Your task to perform on an android device: Go to ESPN.com Image 0: 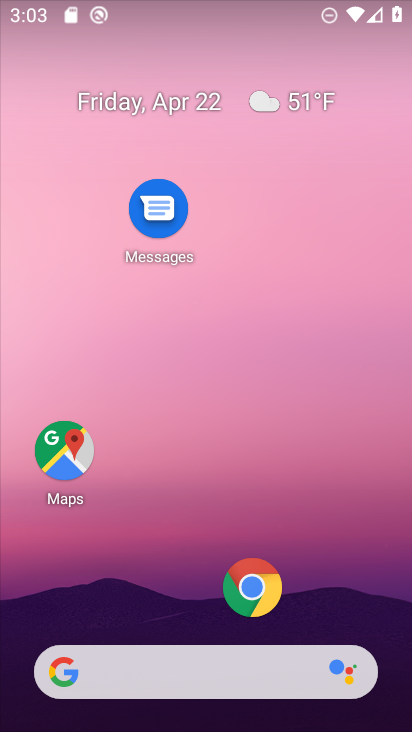
Step 0: click (168, 666)
Your task to perform on an android device: Go to ESPN.com Image 1: 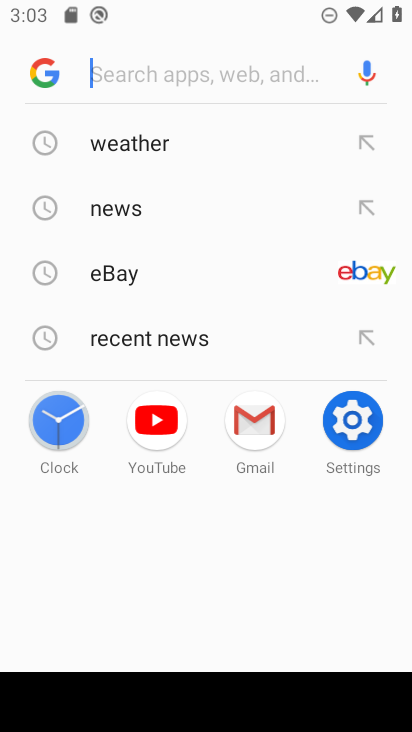
Step 1: type "ESPN.com"
Your task to perform on an android device: Go to ESPN.com Image 2: 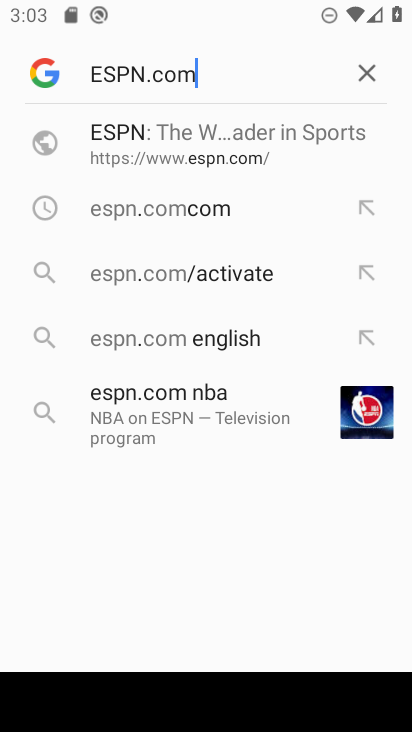
Step 2: click (192, 152)
Your task to perform on an android device: Go to ESPN.com Image 3: 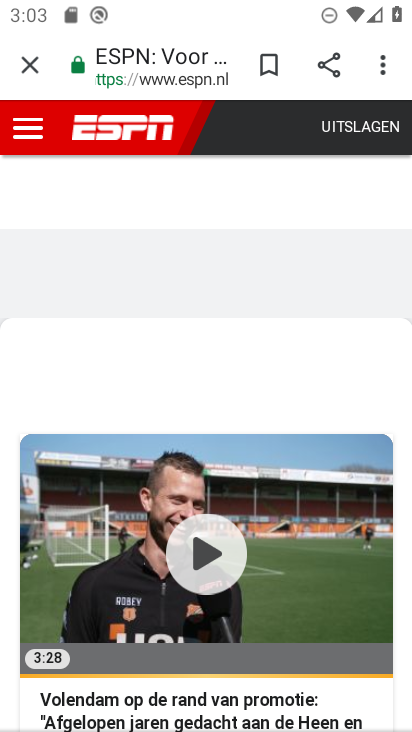
Step 3: task complete